Your task to perform on an android device: Open calendar and show me the third week of next month Image 0: 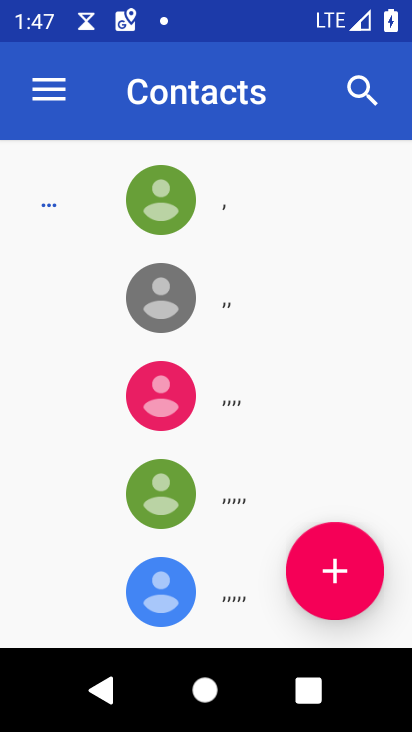
Step 0: press home button
Your task to perform on an android device: Open calendar and show me the third week of next month Image 1: 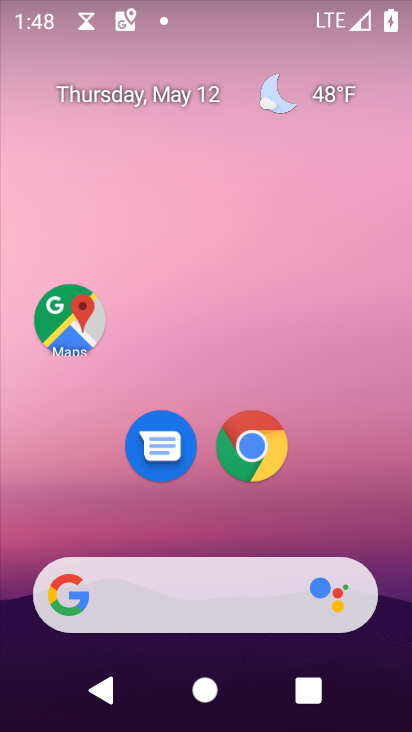
Step 1: click (179, 97)
Your task to perform on an android device: Open calendar and show me the third week of next month Image 2: 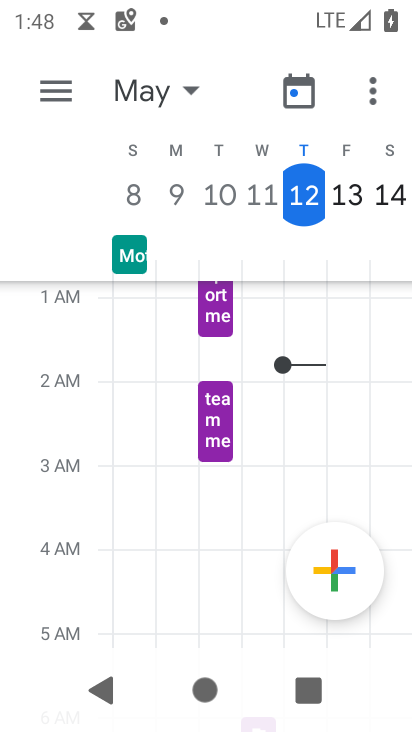
Step 2: click (193, 90)
Your task to perform on an android device: Open calendar and show me the third week of next month Image 3: 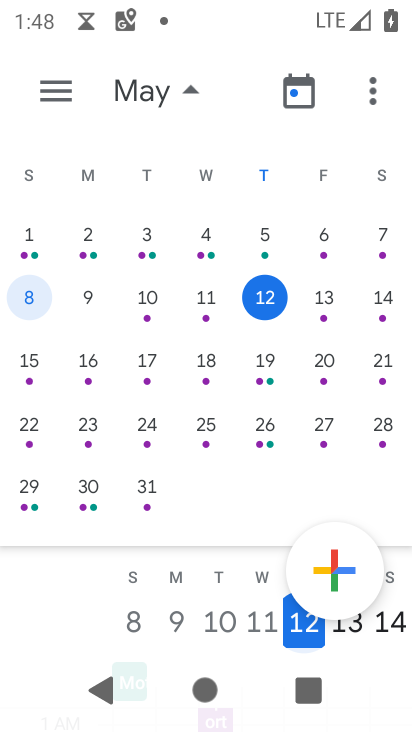
Step 3: drag from (349, 299) to (68, 300)
Your task to perform on an android device: Open calendar and show me the third week of next month Image 4: 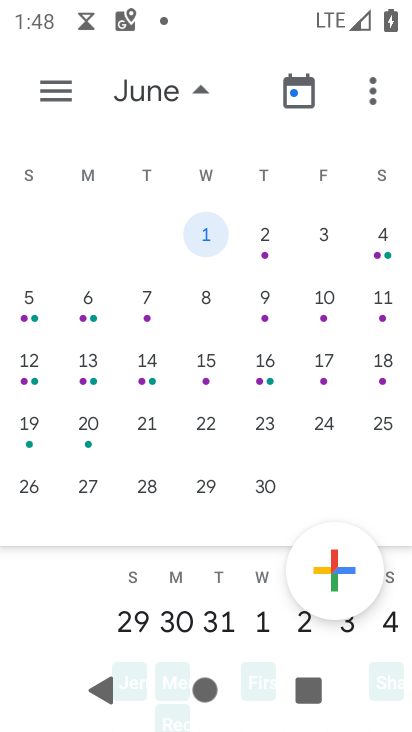
Step 4: click (201, 358)
Your task to perform on an android device: Open calendar and show me the third week of next month Image 5: 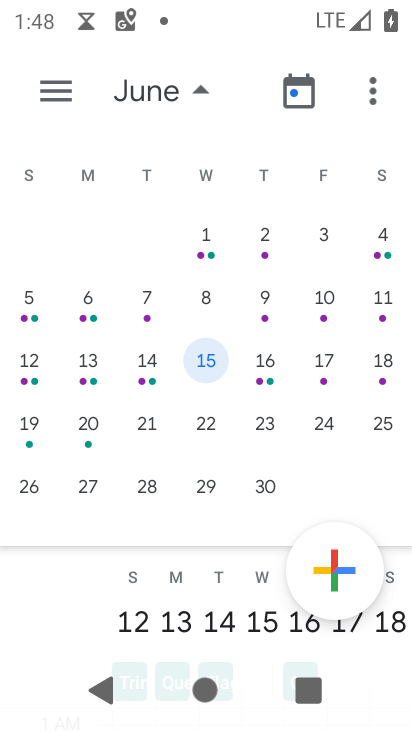
Step 5: task complete